Your task to perform on an android device: change alarm snooze length Image 0: 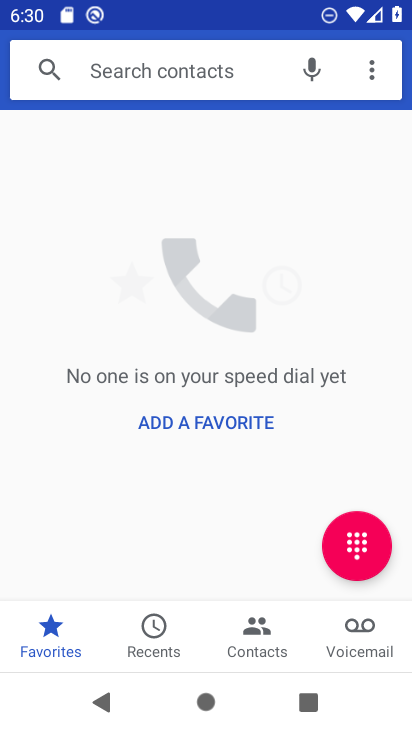
Step 0: press home button
Your task to perform on an android device: change alarm snooze length Image 1: 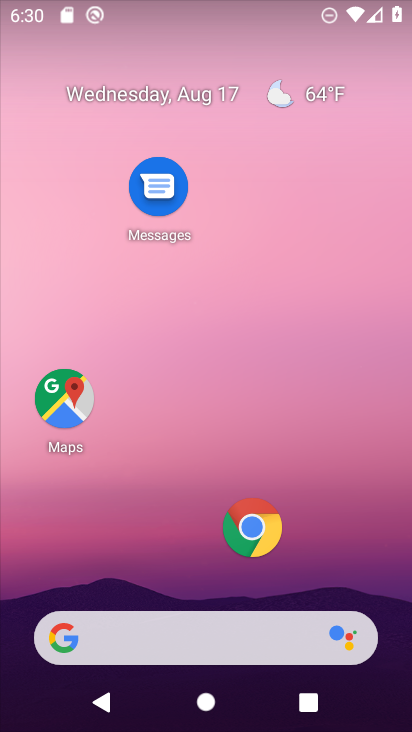
Step 1: drag from (109, 604) to (91, 271)
Your task to perform on an android device: change alarm snooze length Image 2: 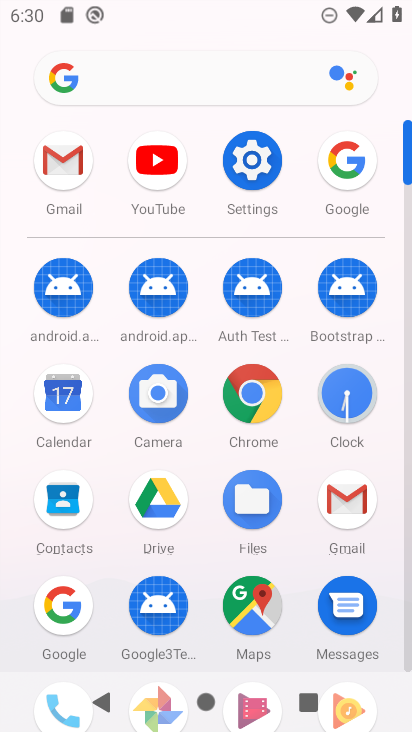
Step 2: click (357, 391)
Your task to perform on an android device: change alarm snooze length Image 3: 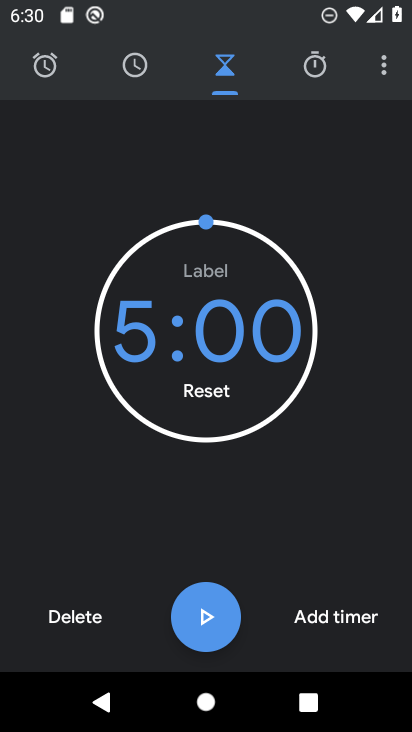
Step 3: click (372, 67)
Your task to perform on an android device: change alarm snooze length Image 4: 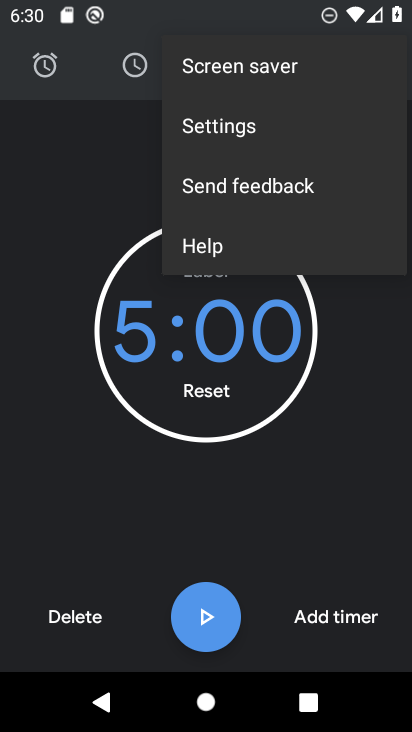
Step 4: click (198, 123)
Your task to perform on an android device: change alarm snooze length Image 5: 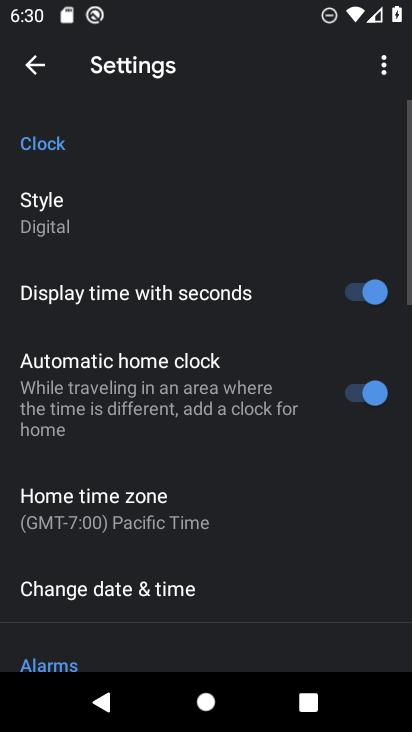
Step 5: drag from (139, 542) to (139, 209)
Your task to perform on an android device: change alarm snooze length Image 6: 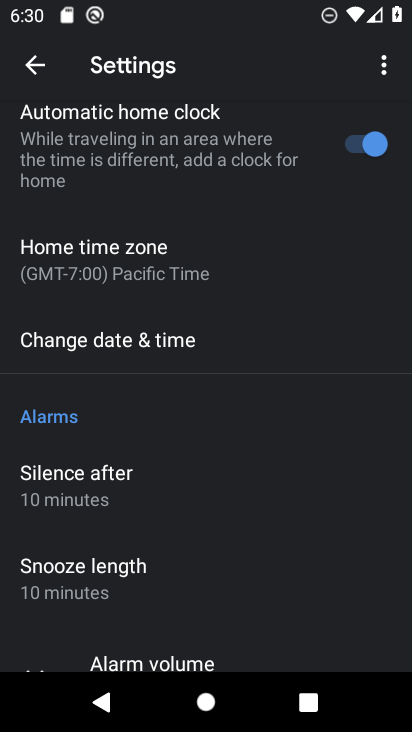
Step 6: click (84, 584)
Your task to perform on an android device: change alarm snooze length Image 7: 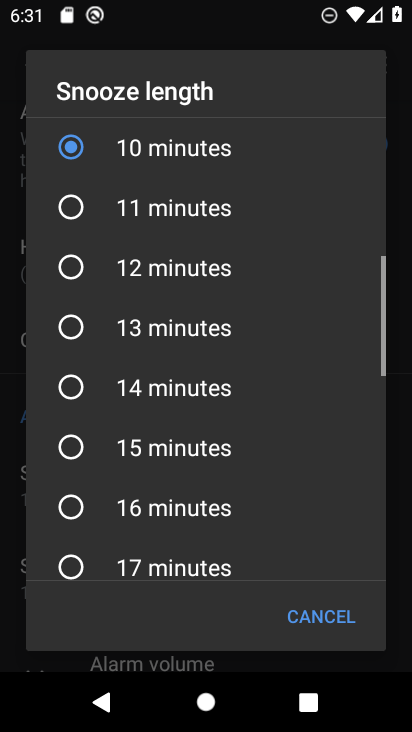
Step 7: click (130, 572)
Your task to perform on an android device: change alarm snooze length Image 8: 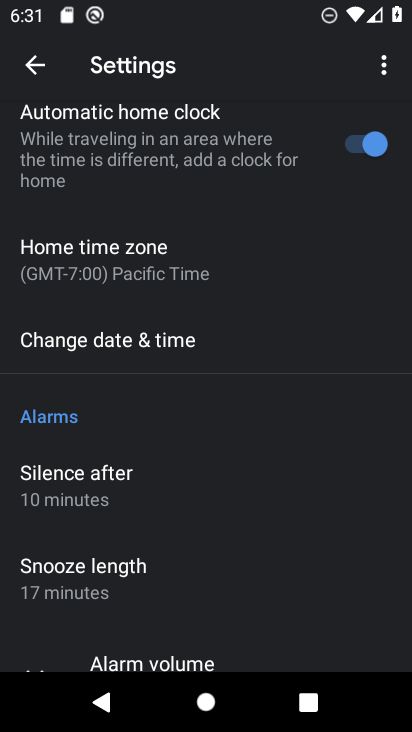
Step 8: task complete